Your task to perform on an android device: Go to settings Image 0: 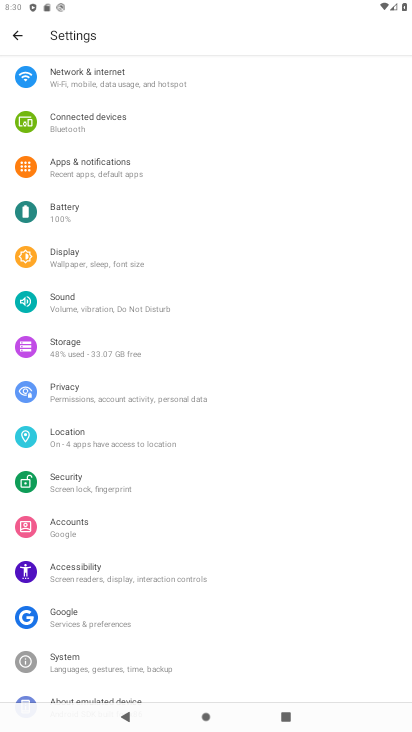
Step 0: press home button
Your task to perform on an android device: Go to settings Image 1: 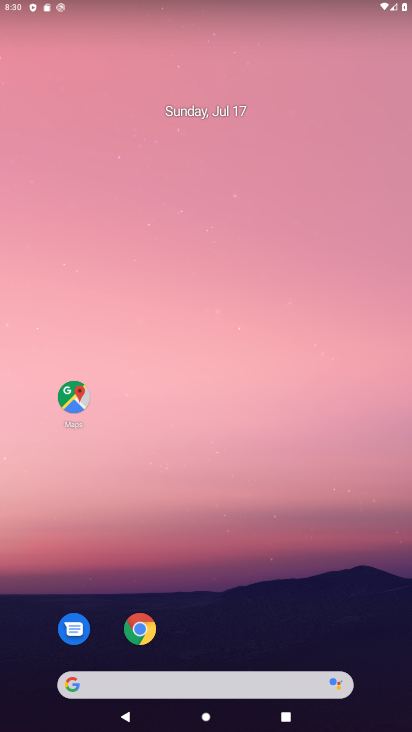
Step 1: drag from (230, 647) to (257, 34)
Your task to perform on an android device: Go to settings Image 2: 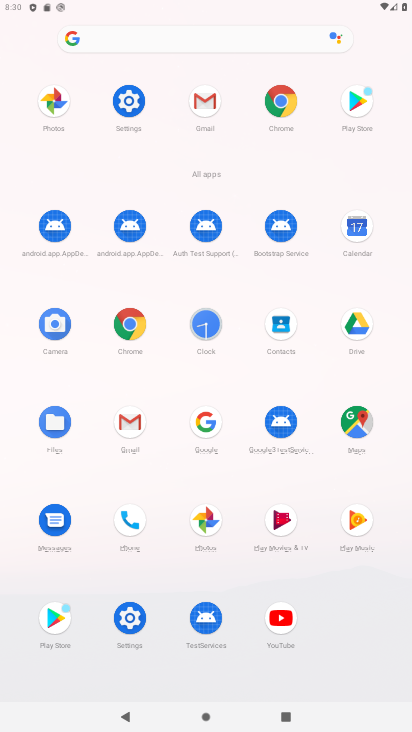
Step 2: click (128, 95)
Your task to perform on an android device: Go to settings Image 3: 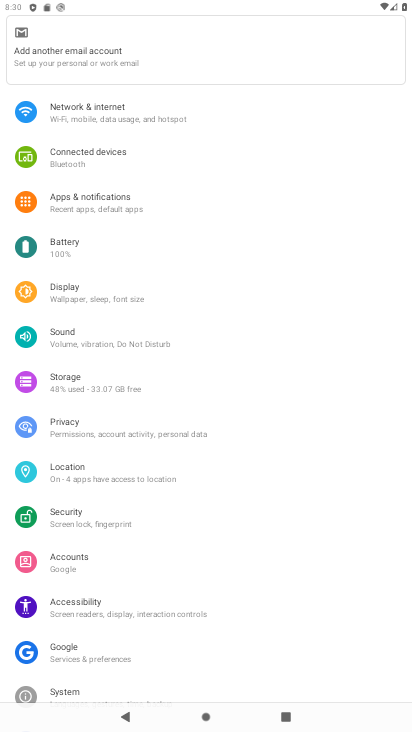
Step 3: task complete